Your task to perform on an android device: add a label to a message in the gmail app Image 0: 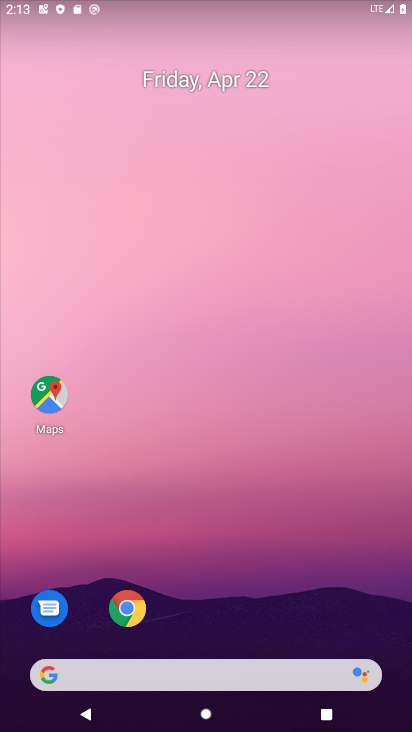
Step 0: drag from (274, 683) to (273, 260)
Your task to perform on an android device: add a label to a message in the gmail app Image 1: 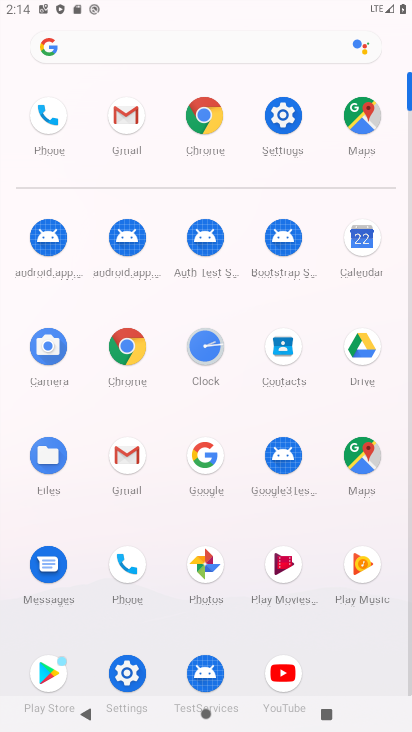
Step 1: click (135, 127)
Your task to perform on an android device: add a label to a message in the gmail app Image 2: 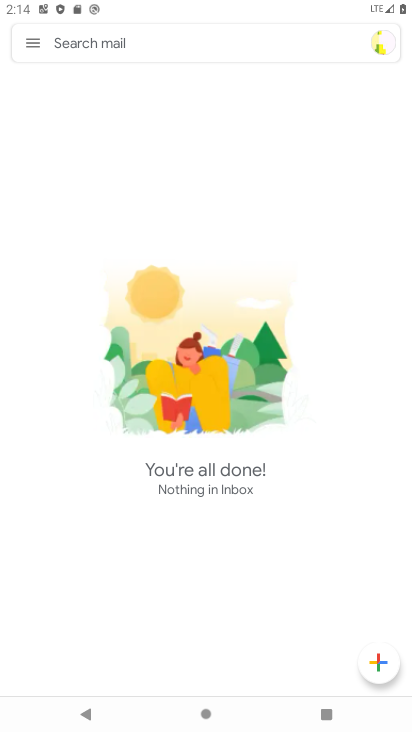
Step 2: click (35, 43)
Your task to perform on an android device: add a label to a message in the gmail app Image 3: 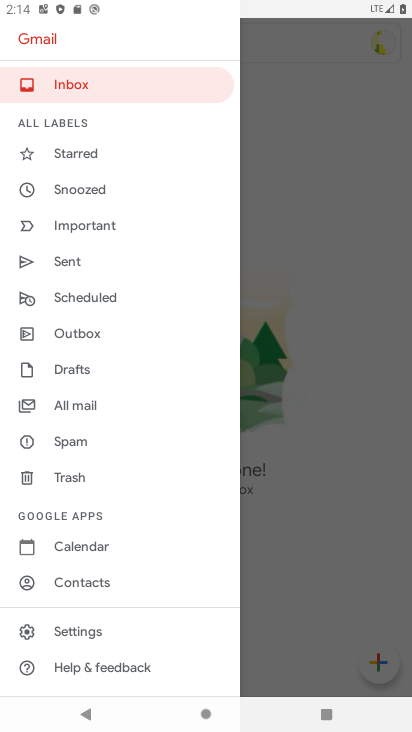
Step 3: click (85, 634)
Your task to perform on an android device: add a label to a message in the gmail app Image 4: 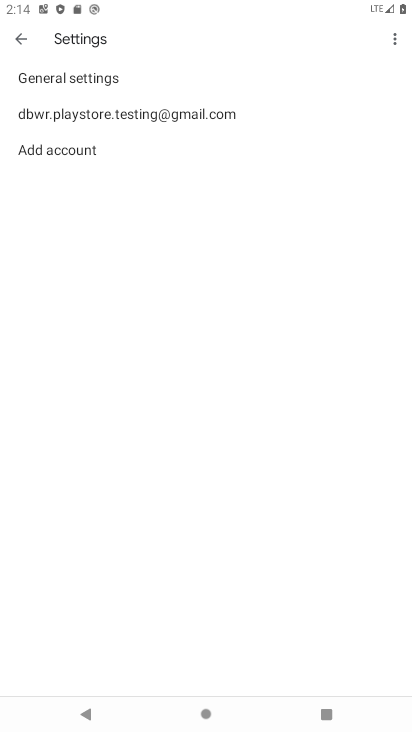
Step 4: click (129, 115)
Your task to perform on an android device: add a label to a message in the gmail app Image 5: 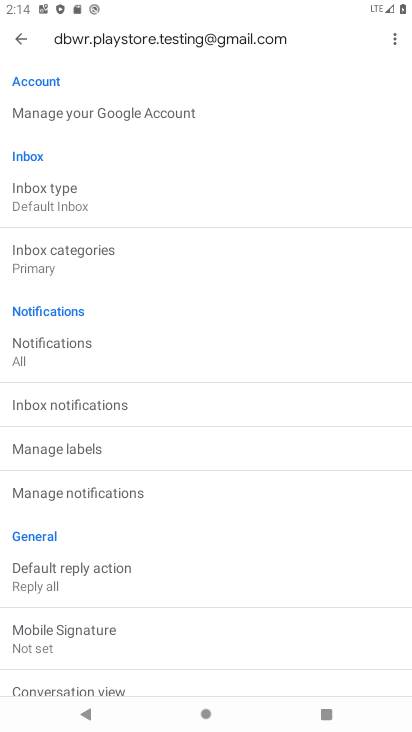
Step 5: click (85, 456)
Your task to perform on an android device: add a label to a message in the gmail app Image 6: 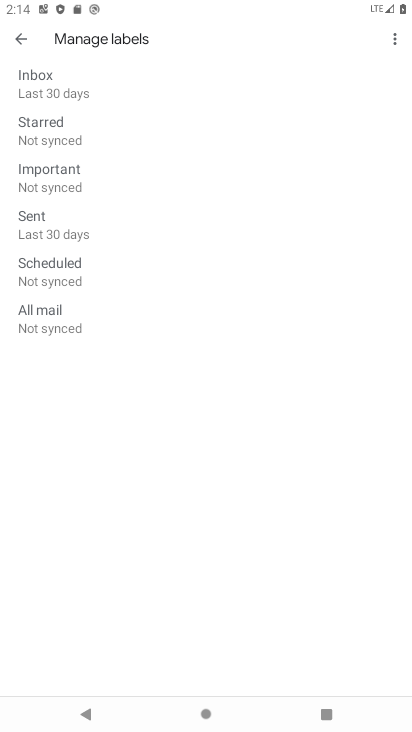
Step 6: click (69, 128)
Your task to perform on an android device: add a label to a message in the gmail app Image 7: 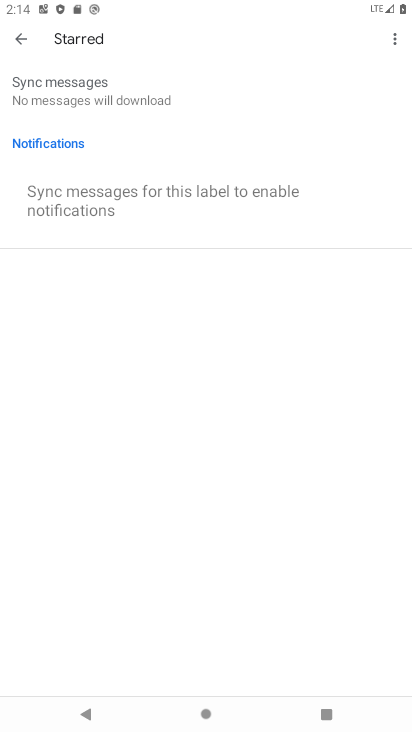
Step 7: task complete